Your task to perform on an android device: delete the emails in spam in the gmail app Image 0: 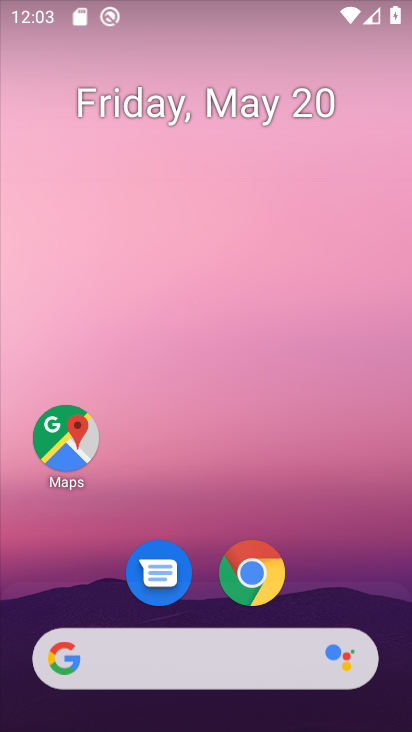
Step 0: drag from (327, 545) to (223, 44)
Your task to perform on an android device: delete the emails in spam in the gmail app Image 1: 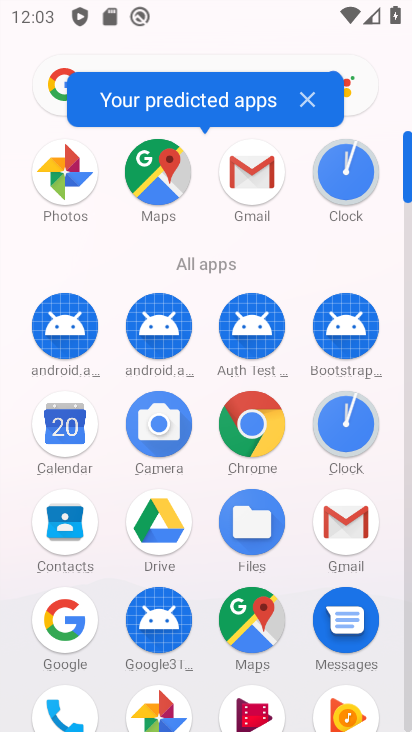
Step 1: click (243, 171)
Your task to perform on an android device: delete the emails in spam in the gmail app Image 2: 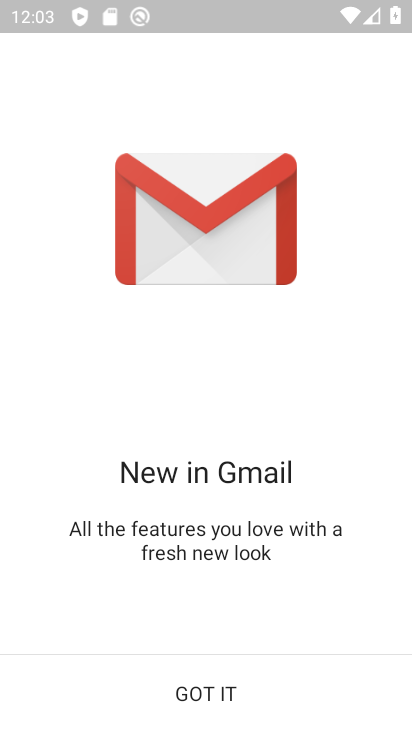
Step 2: click (212, 693)
Your task to perform on an android device: delete the emails in spam in the gmail app Image 3: 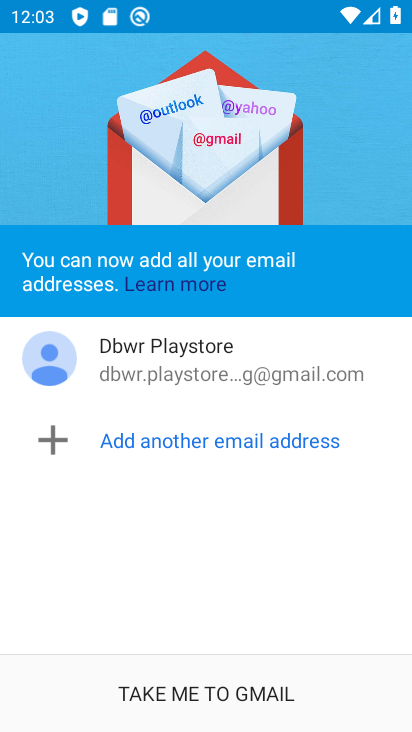
Step 3: click (212, 693)
Your task to perform on an android device: delete the emails in spam in the gmail app Image 4: 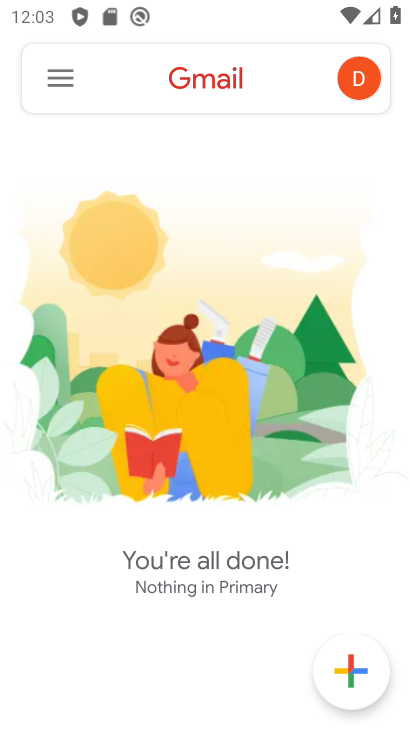
Step 4: click (64, 66)
Your task to perform on an android device: delete the emails in spam in the gmail app Image 5: 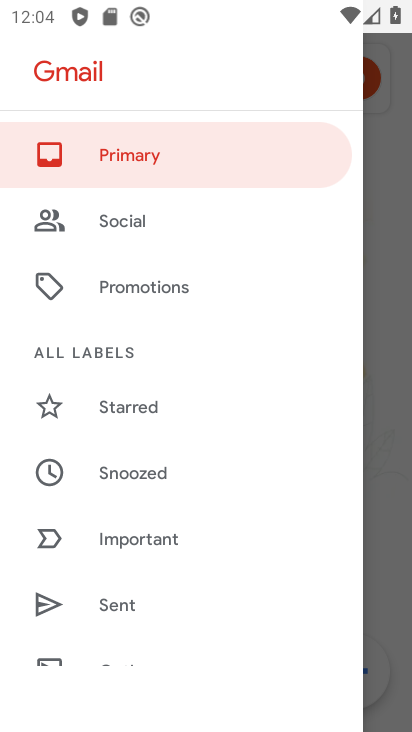
Step 5: drag from (189, 584) to (159, 131)
Your task to perform on an android device: delete the emails in spam in the gmail app Image 6: 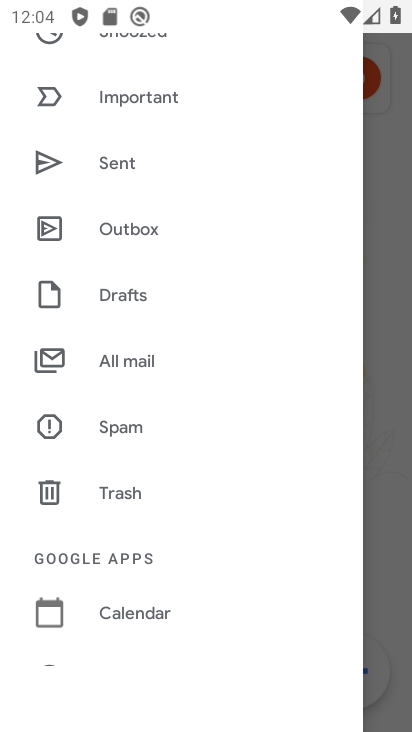
Step 6: drag from (200, 526) to (188, 180)
Your task to perform on an android device: delete the emails in spam in the gmail app Image 7: 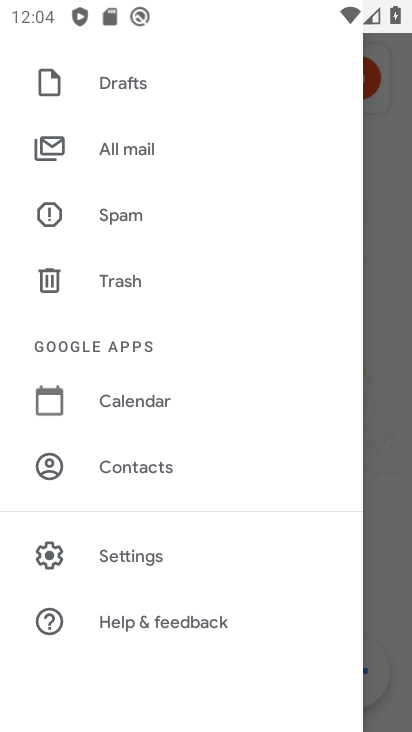
Step 7: click (131, 588)
Your task to perform on an android device: delete the emails in spam in the gmail app Image 8: 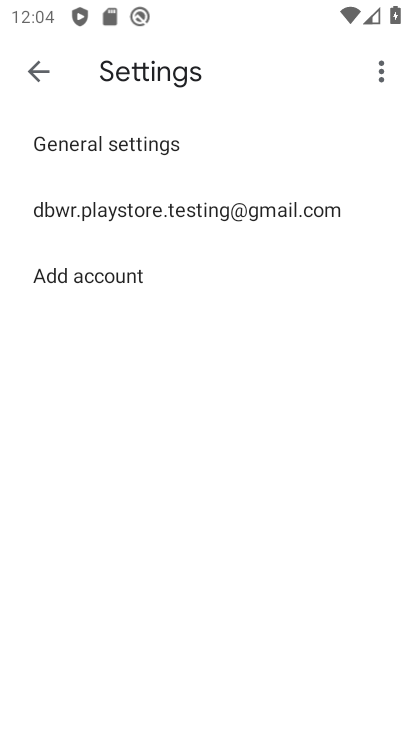
Step 8: click (39, 68)
Your task to perform on an android device: delete the emails in spam in the gmail app Image 9: 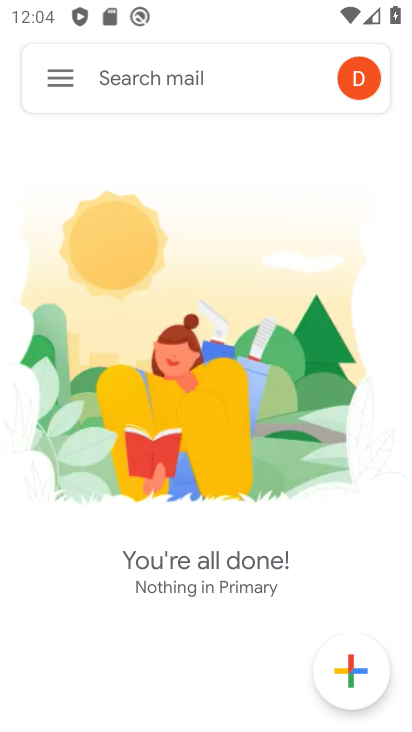
Step 9: click (54, 72)
Your task to perform on an android device: delete the emails in spam in the gmail app Image 10: 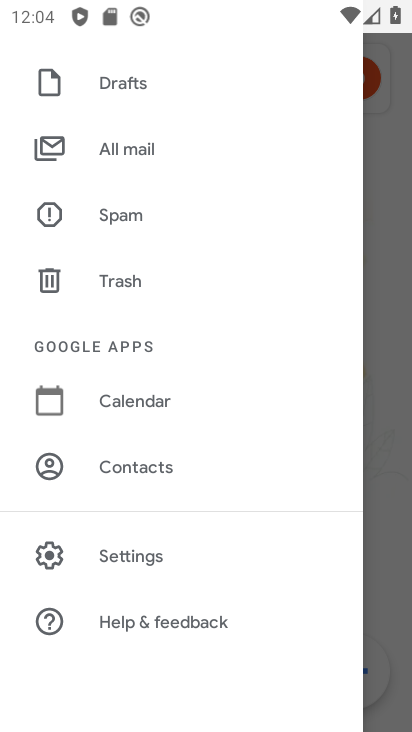
Step 10: click (125, 209)
Your task to perform on an android device: delete the emails in spam in the gmail app Image 11: 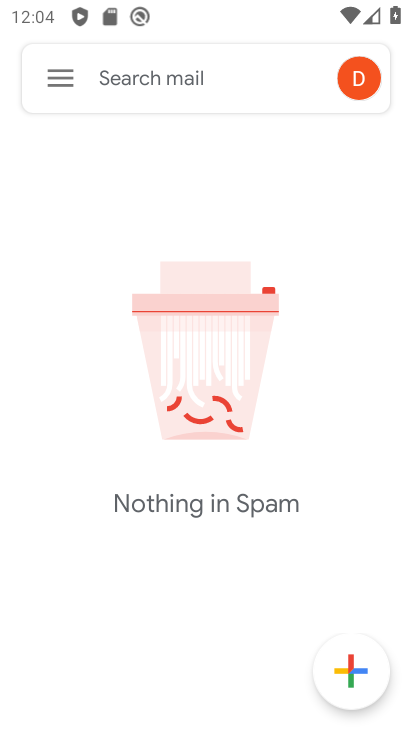
Step 11: task complete